Your task to perform on an android device: Open Google Chrome and click the shortcut for Amazon.com Image 0: 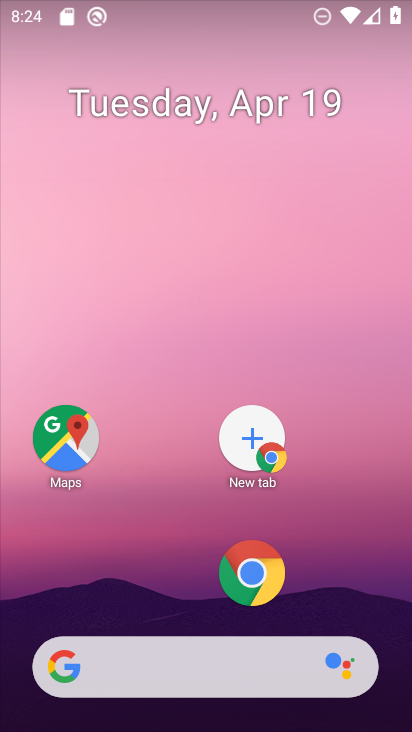
Step 0: click (252, 441)
Your task to perform on an android device: Open Google Chrome and click the shortcut for Amazon.com Image 1: 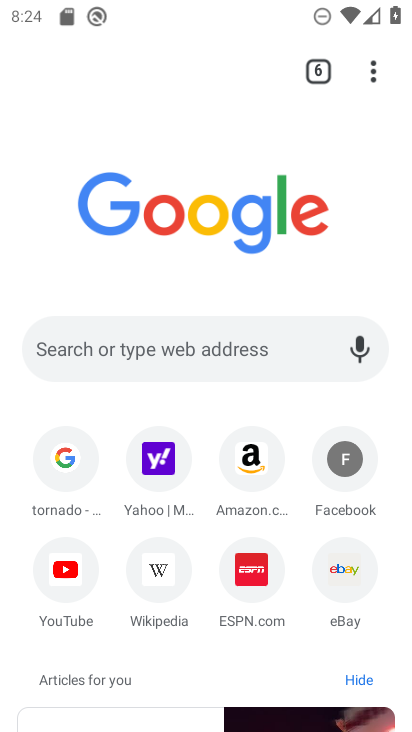
Step 1: click (252, 441)
Your task to perform on an android device: Open Google Chrome and click the shortcut for Amazon.com Image 2: 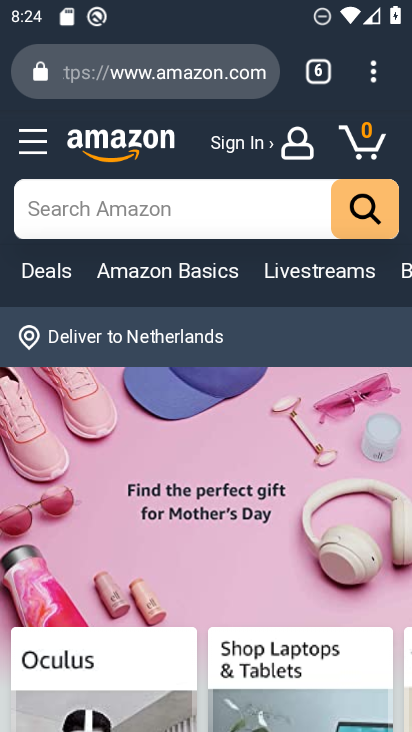
Step 2: task complete